Your task to perform on an android device: Open the map Image 0: 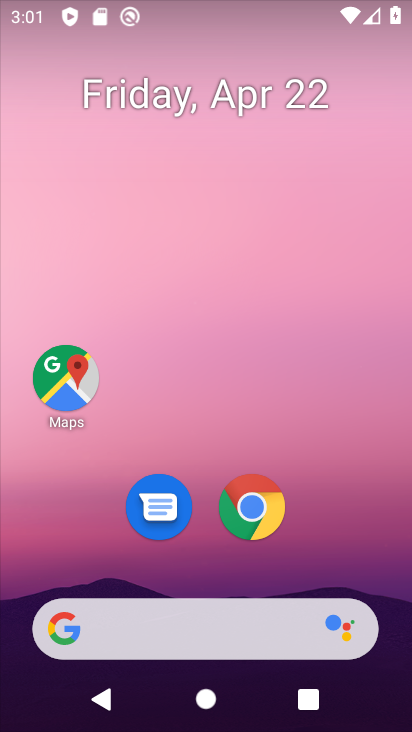
Step 0: drag from (148, 583) to (226, 120)
Your task to perform on an android device: Open the map Image 1: 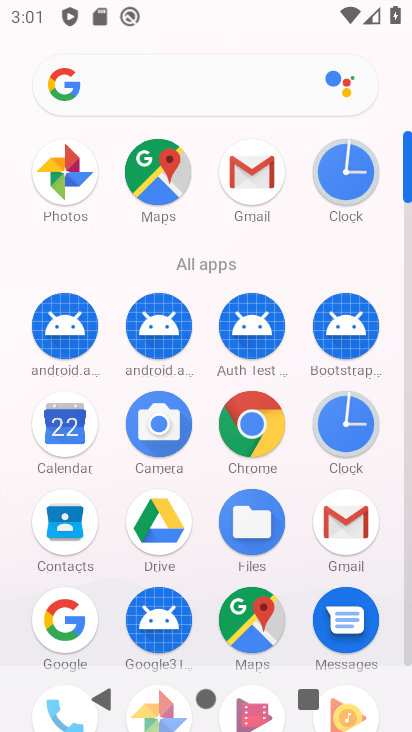
Step 1: drag from (205, 551) to (262, 255)
Your task to perform on an android device: Open the map Image 2: 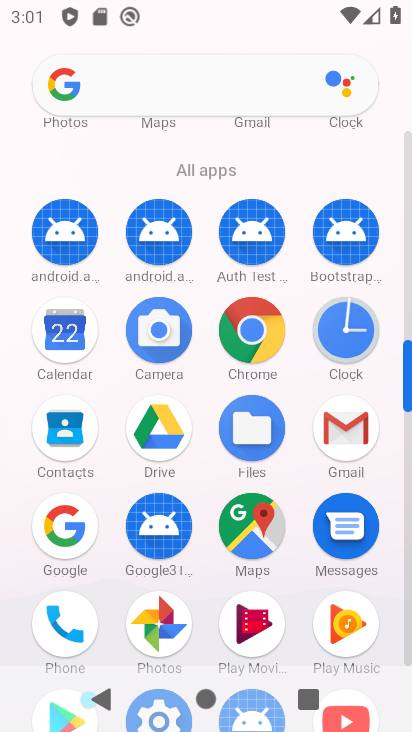
Step 2: click (265, 539)
Your task to perform on an android device: Open the map Image 3: 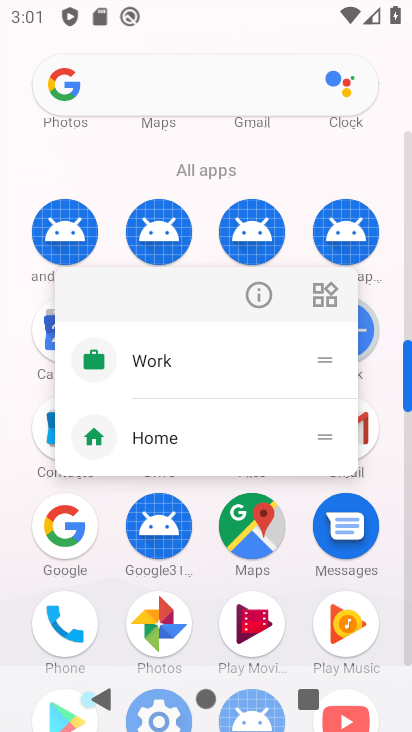
Step 3: click (247, 551)
Your task to perform on an android device: Open the map Image 4: 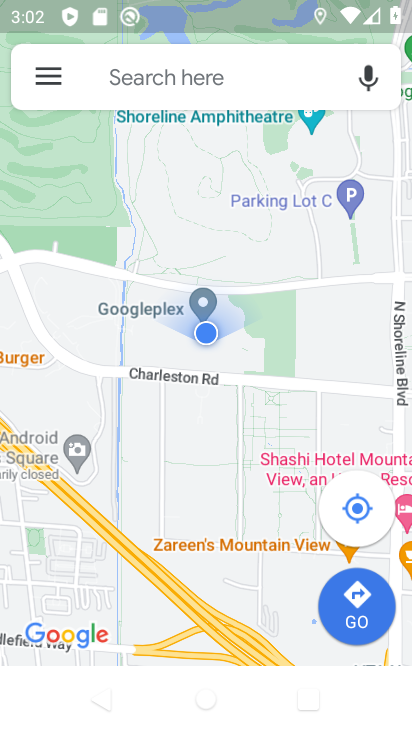
Step 4: task complete